Your task to perform on an android device: Open eBay Image 0: 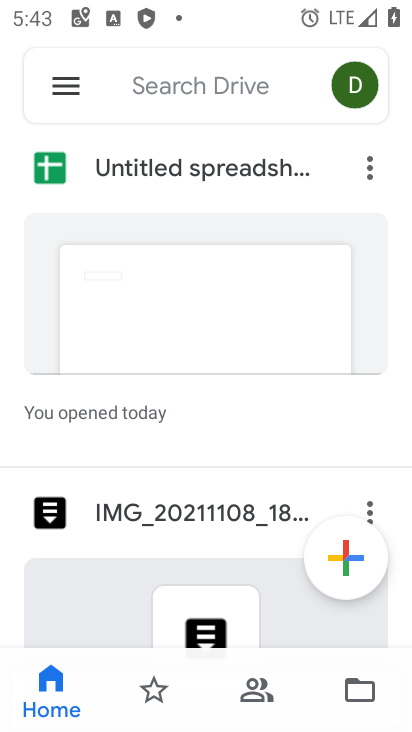
Step 0: press home button
Your task to perform on an android device: Open eBay Image 1: 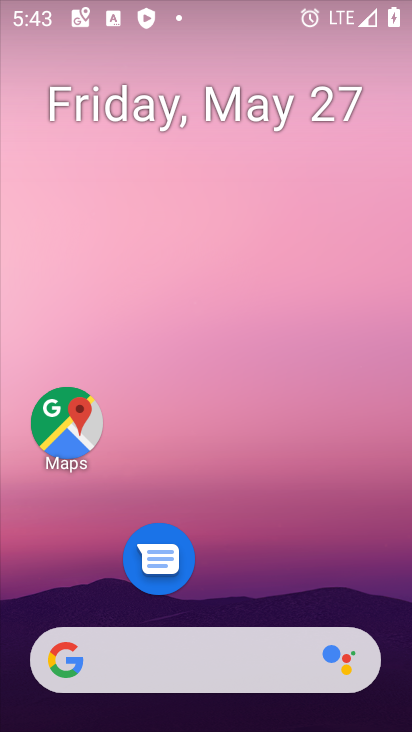
Step 1: drag from (216, 684) to (294, 117)
Your task to perform on an android device: Open eBay Image 2: 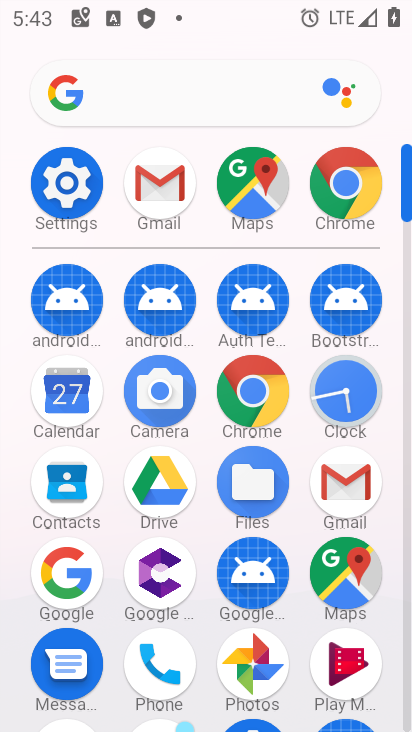
Step 2: click (261, 379)
Your task to perform on an android device: Open eBay Image 3: 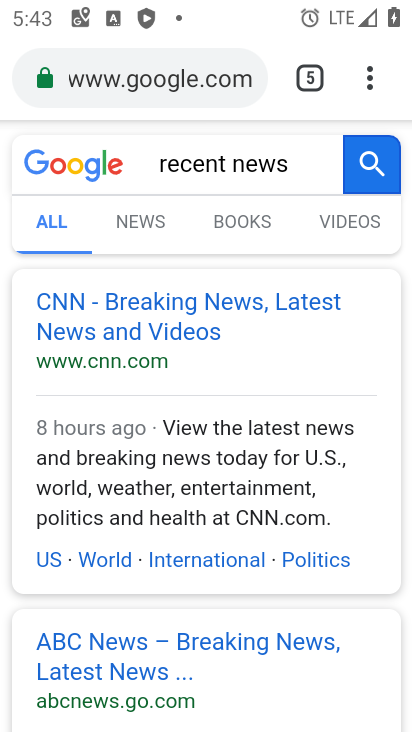
Step 3: click (160, 92)
Your task to perform on an android device: Open eBay Image 4: 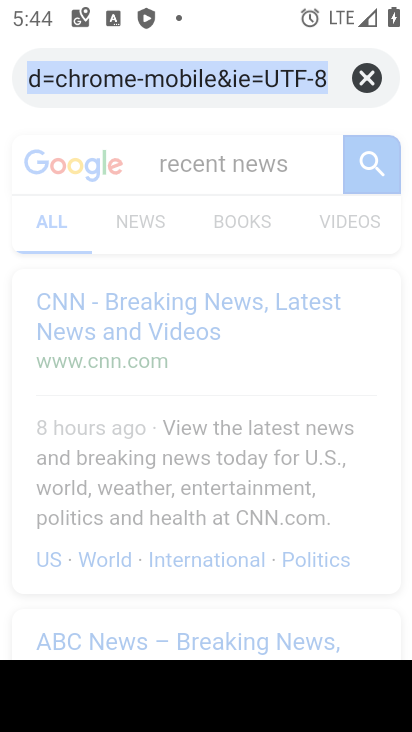
Step 4: type "ebay"
Your task to perform on an android device: Open eBay Image 5: 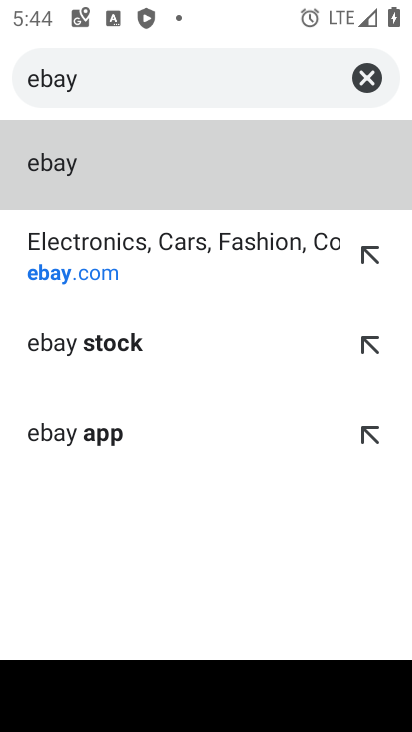
Step 5: click (228, 257)
Your task to perform on an android device: Open eBay Image 6: 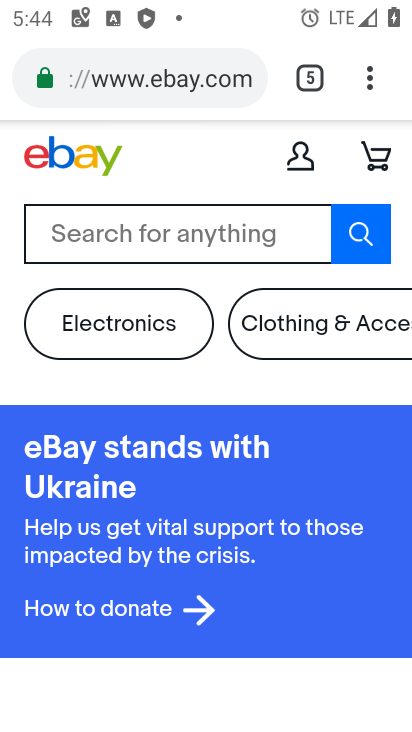
Step 6: task complete